Your task to perform on an android device: Open Google Chrome and click the shortcut for Amazon.com Image 0: 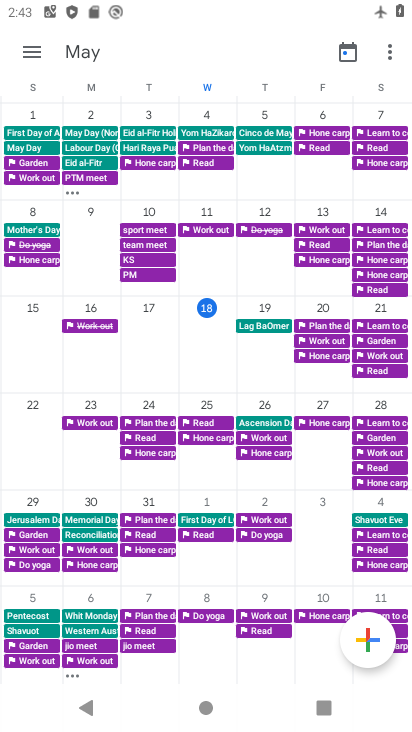
Step 0: press home button
Your task to perform on an android device: Open Google Chrome and click the shortcut for Amazon.com Image 1: 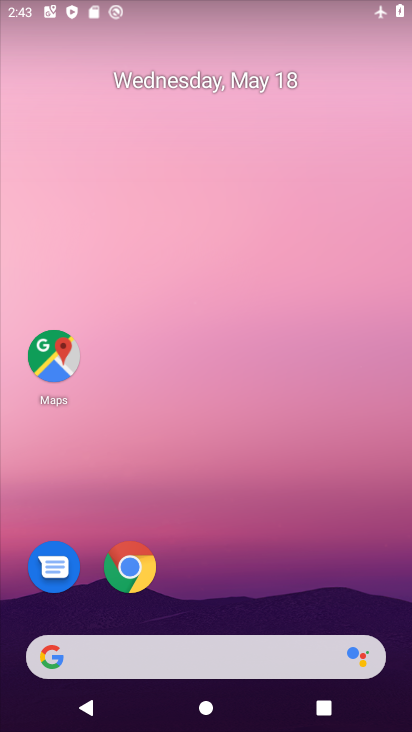
Step 1: click (116, 546)
Your task to perform on an android device: Open Google Chrome and click the shortcut for Amazon.com Image 2: 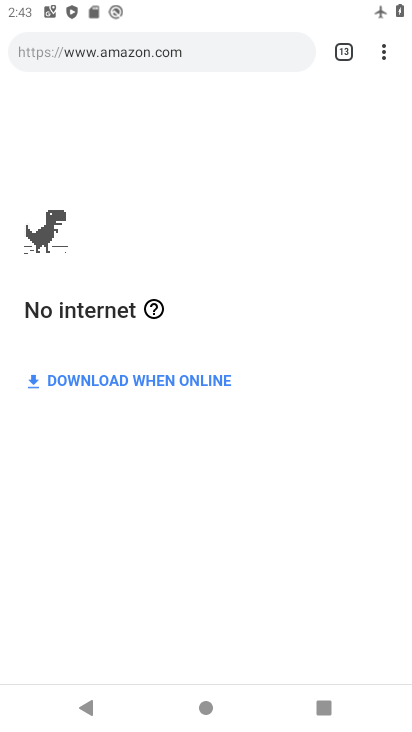
Step 2: task complete